Your task to perform on an android device: toggle priority inbox in the gmail app Image 0: 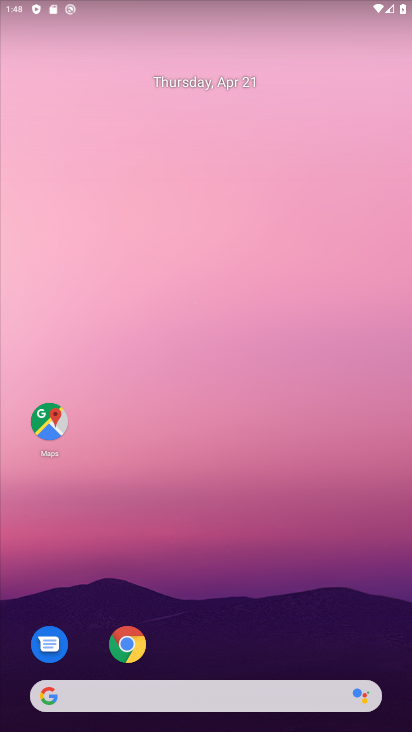
Step 0: drag from (202, 647) to (229, 62)
Your task to perform on an android device: toggle priority inbox in the gmail app Image 1: 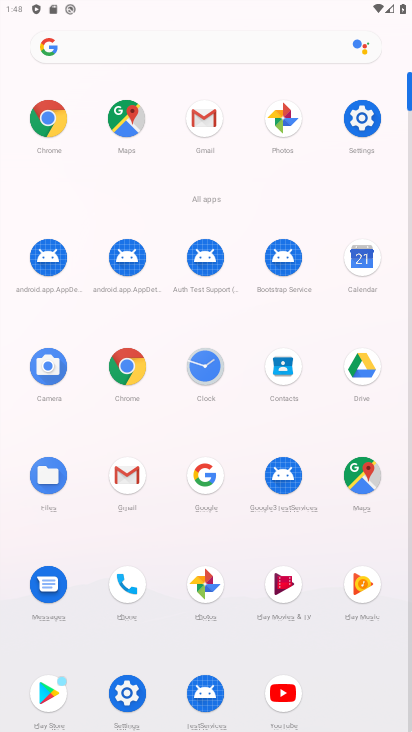
Step 1: click (198, 110)
Your task to perform on an android device: toggle priority inbox in the gmail app Image 2: 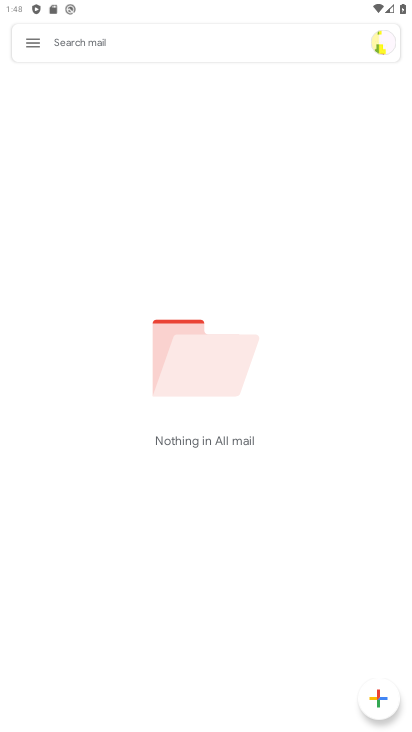
Step 2: click (43, 46)
Your task to perform on an android device: toggle priority inbox in the gmail app Image 3: 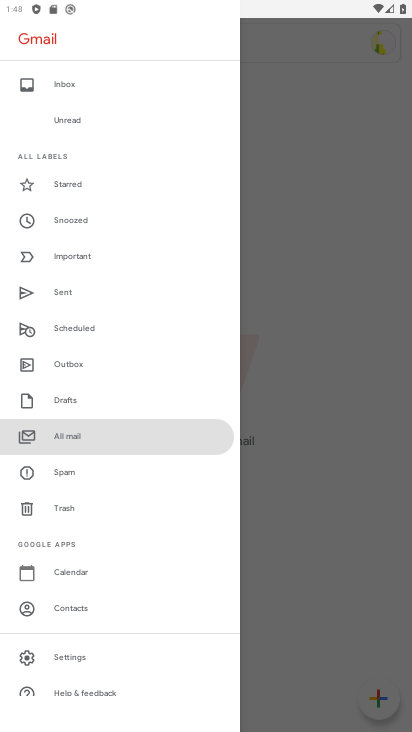
Step 3: click (107, 649)
Your task to perform on an android device: toggle priority inbox in the gmail app Image 4: 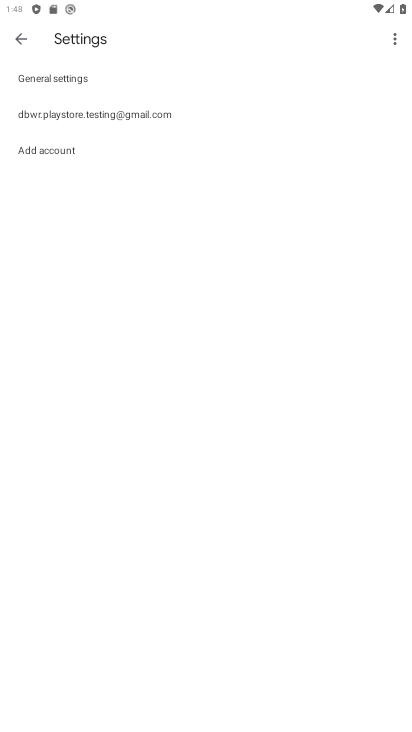
Step 4: click (230, 117)
Your task to perform on an android device: toggle priority inbox in the gmail app Image 5: 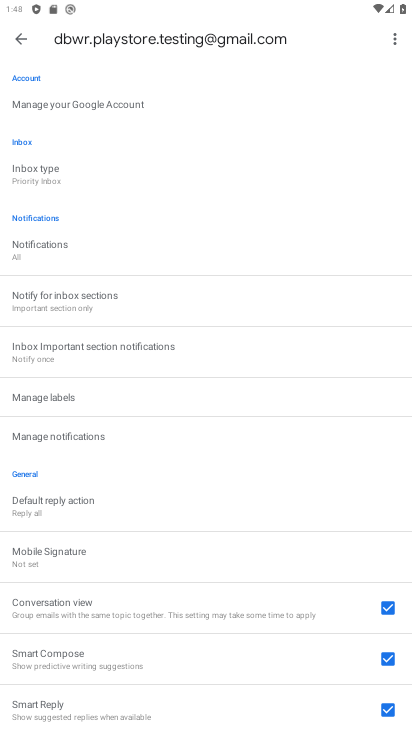
Step 5: click (185, 180)
Your task to perform on an android device: toggle priority inbox in the gmail app Image 6: 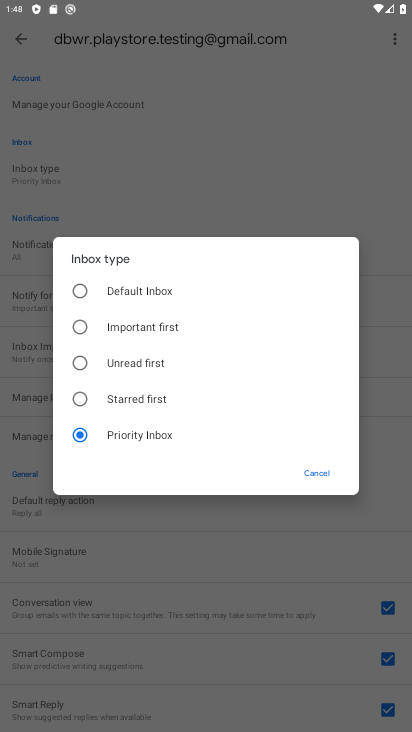
Step 6: click (121, 299)
Your task to perform on an android device: toggle priority inbox in the gmail app Image 7: 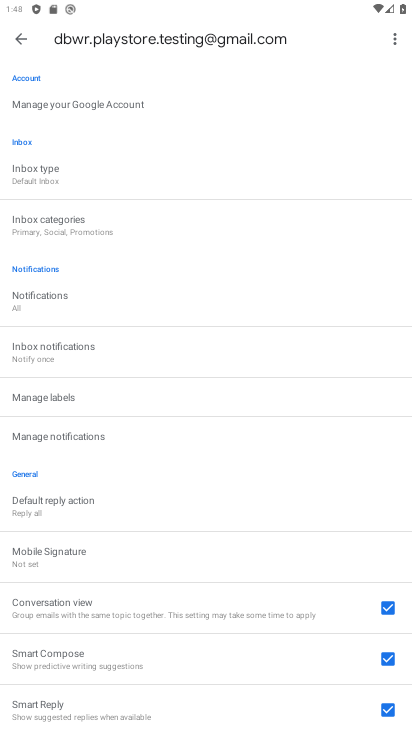
Step 7: task complete